Your task to perform on an android device: turn off notifications settings in the gmail app Image 0: 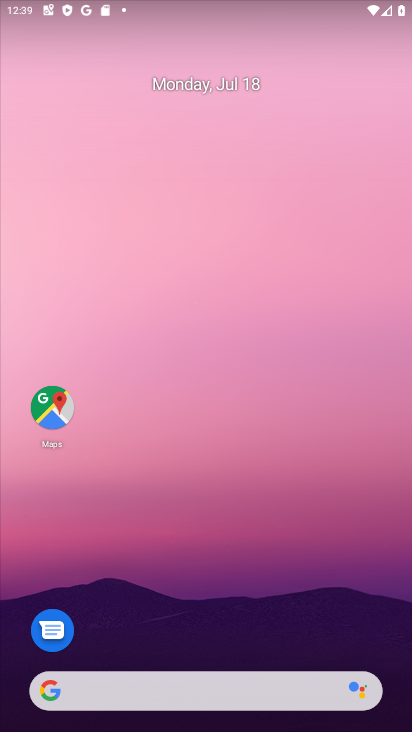
Step 0: drag from (254, 661) to (260, 9)
Your task to perform on an android device: turn off notifications settings in the gmail app Image 1: 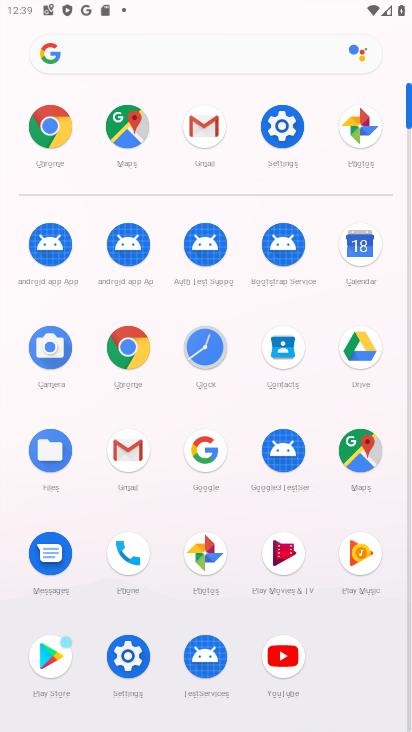
Step 1: click (124, 452)
Your task to perform on an android device: turn off notifications settings in the gmail app Image 2: 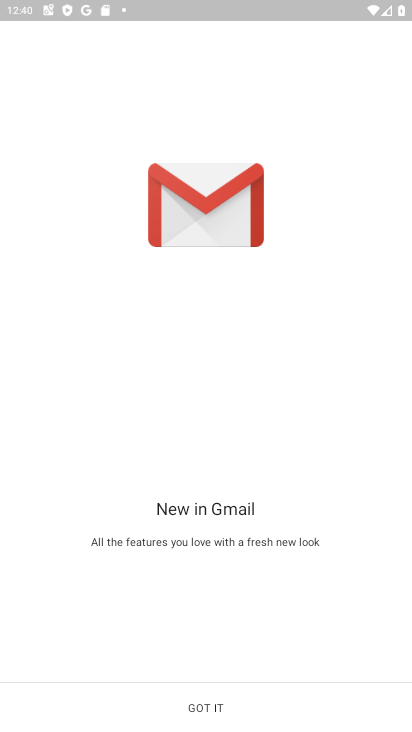
Step 2: click (270, 696)
Your task to perform on an android device: turn off notifications settings in the gmail app Image 3: 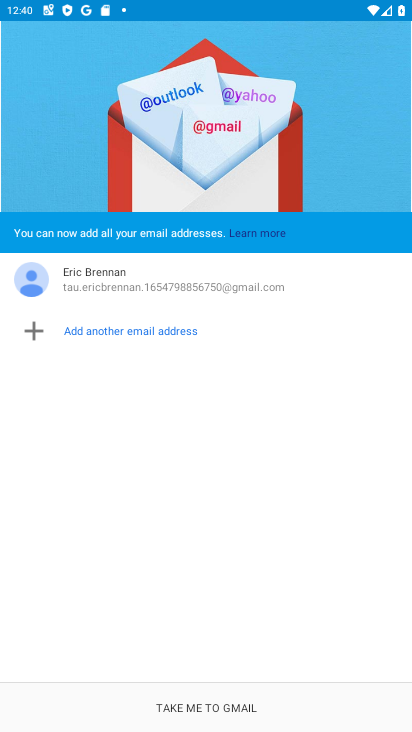
Step 3: click (268, 697)
Your task to perform on an android device: turn off notifications settings in the gmail app Image 4: 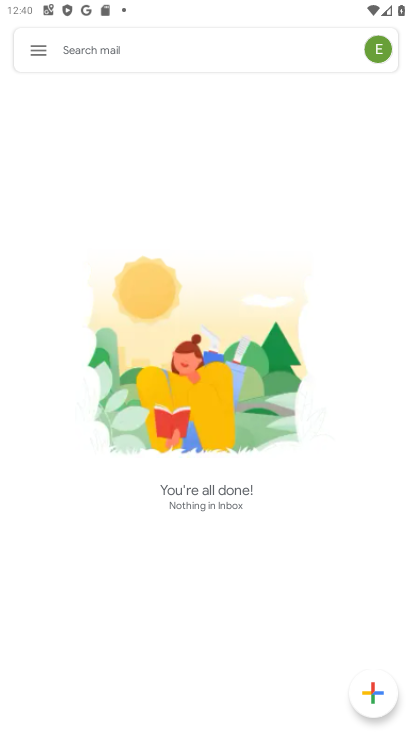
Step 4: click (39, 46)
Your task to perform on an android device: turn off notifications settings in the gmail app Image 5: 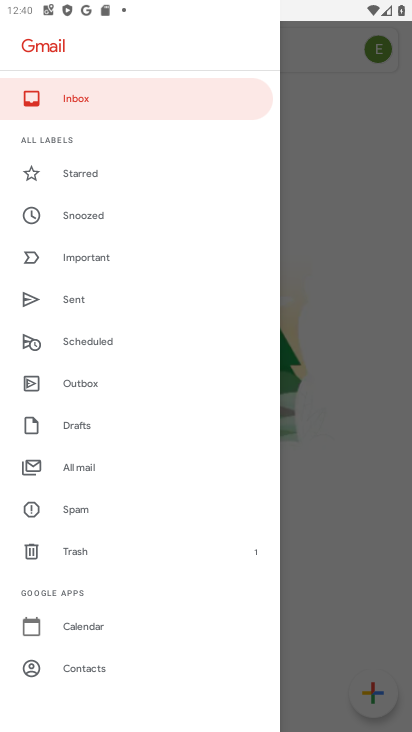
Step 5: drag from (94, 659) to (78, 137)
Your task to perform on an android device: turn off notifications settings in the gmail app Image 6: 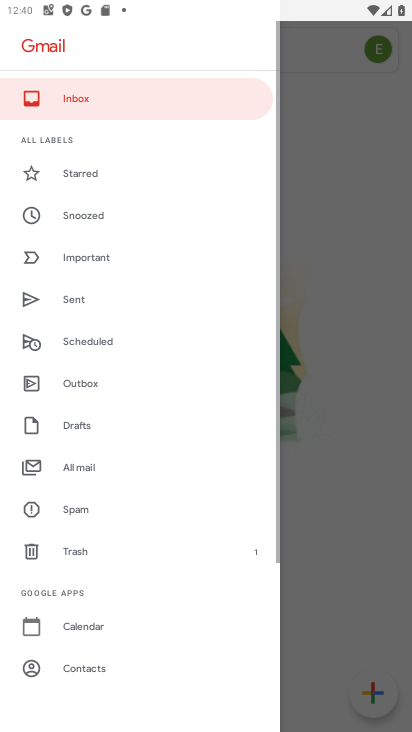
Step 6: drag from (109, 656) to (96, 313)
Your task to perform on an android device: turn off notifications settings in the gmail app Image 7: 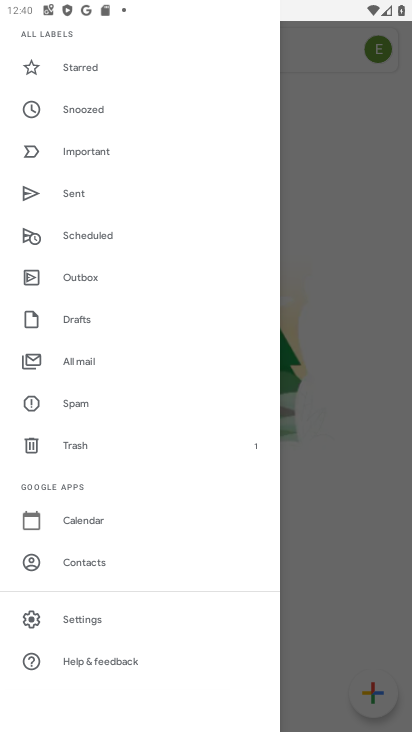
Step 7: click (98, 619)
Your task to perform on an android device: turn off notifications settings in the gmail app Image 8: 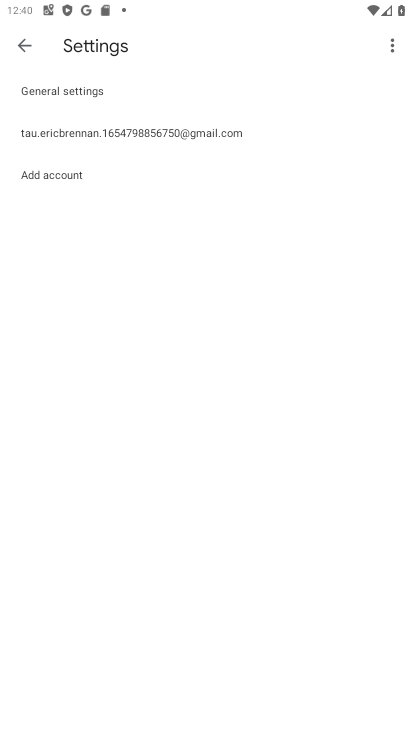
Step 8: click (75, 125)
Your task to perform on an android device: turn off notifications settings in the gmail app Image 9: 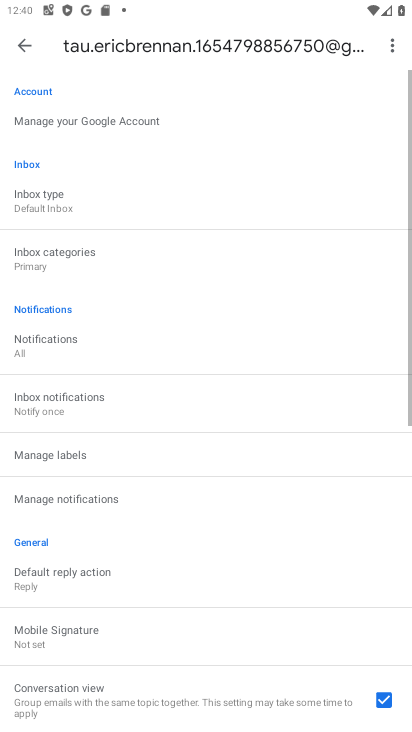
Step 9: click (114, 496)
Your task to perform on an android device: turn off notifications settings in the gmail app Image 10: 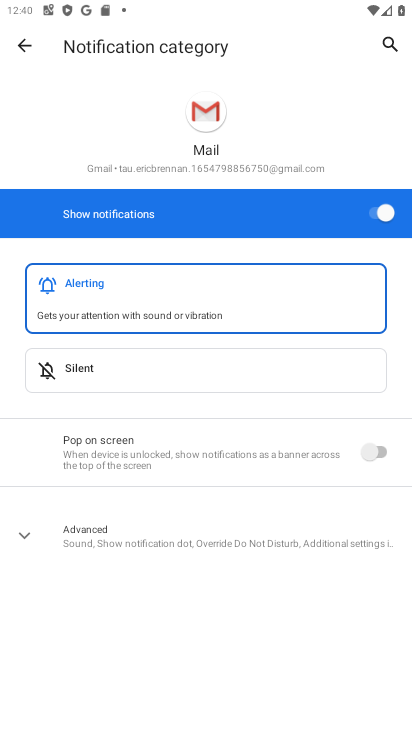
Step 10: click (383, 211)
Your task to perform on an android device: turn off notifications settings in the gmail app Image 11: 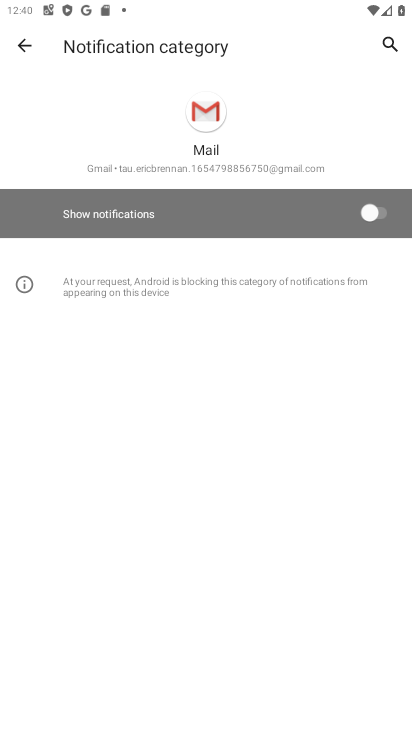
Step 11: task complete